Your task to perform on an android device: delete the emails in spam in the gmail app Image 0: 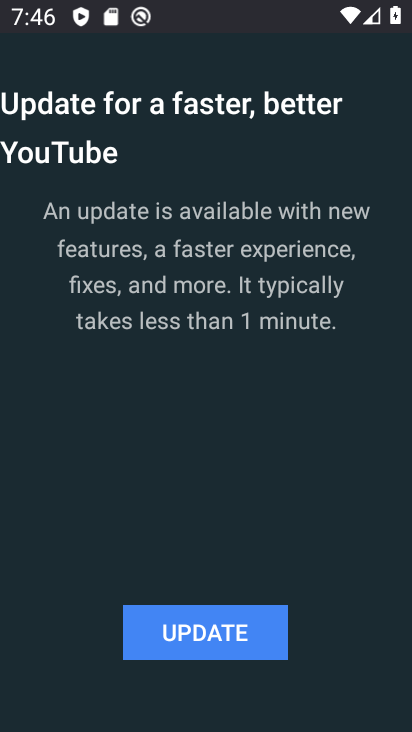
Step 0: press home button
Your task to perform on an android device: delete the emails in spam in the gmail app Image 1: 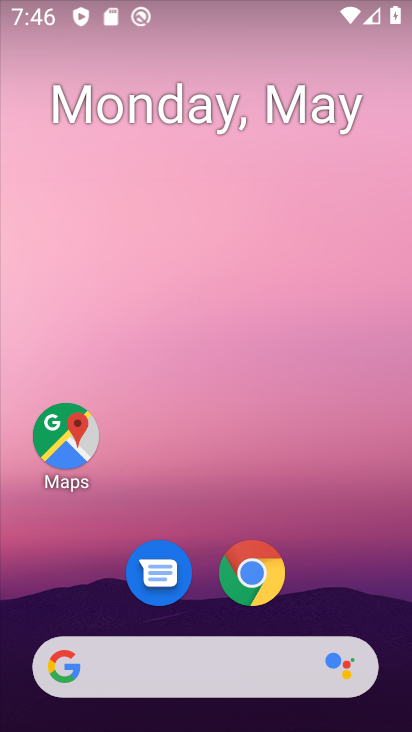
Step 1: drag from (353, 598) to (383, 143)
Your task to perform on an android device: delete the emails in spam in the gmail app Image 2: 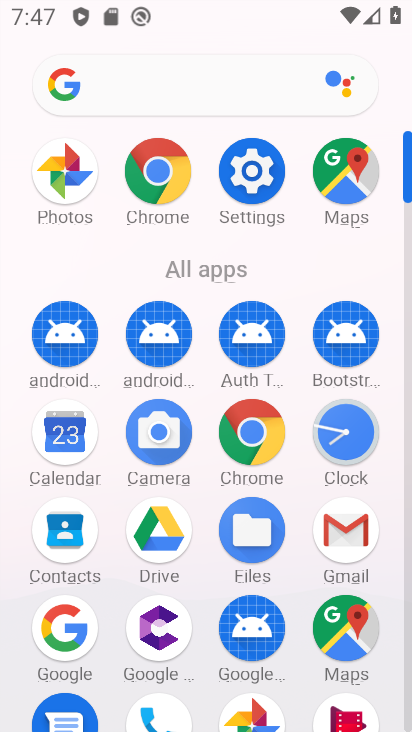
Step 2: click (353, 555)
Your task to perform on an android device: delete the emails in spam in the gmail app Image 3: 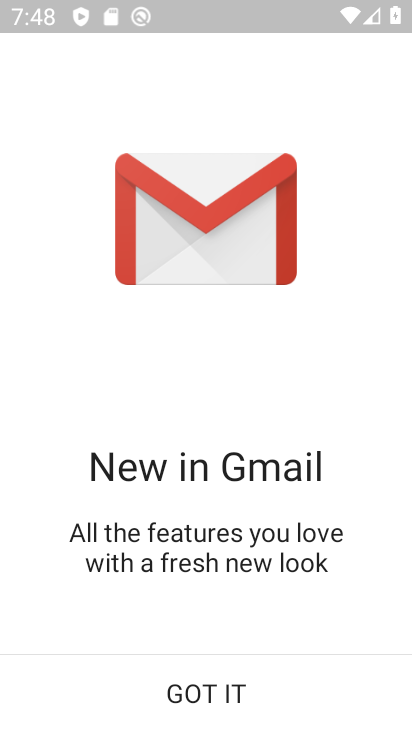
Step 3: click (279, 666)
Your task to perform on an android device: delete the emails in spam in the gmail app Image 4: 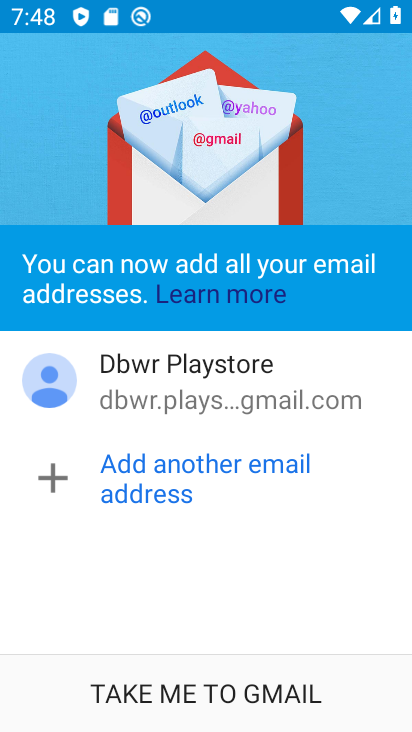
Step 4: click (279, 666)
Your task to perform on an android device: delete the emails in spam in the gmail app Image 5: 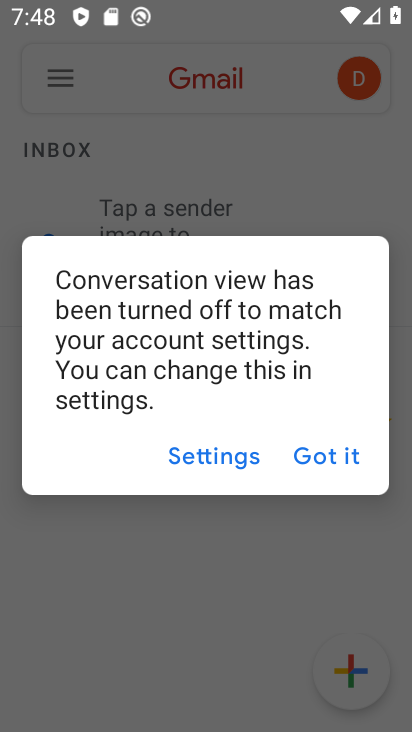
Step 5: click (344, 482)
Your task to perform on an android device: delete the emails in spam in the gmail app Image 6: 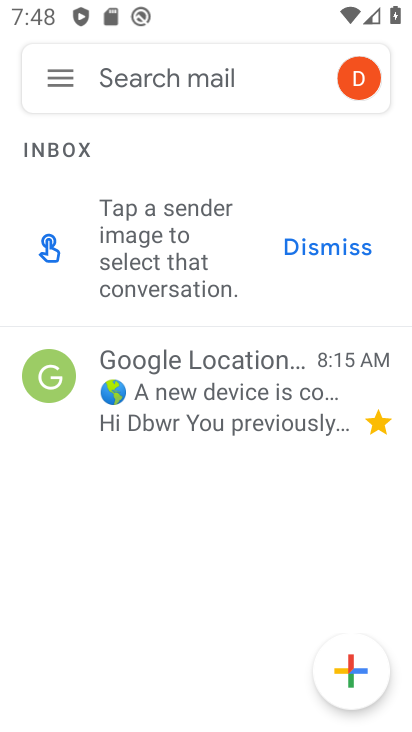
Step 6: click (51, 99)
Your task to perform on an android device: delete the emails in spam in the gmail app Image 7: 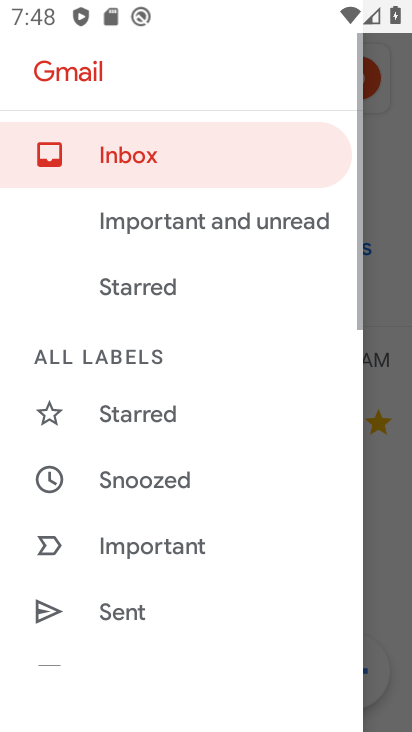
Step 7: drag from (171, 546) to (215, 123)
Your task to perform on an android device: delete the emails in spam in the gmail app Image 8: 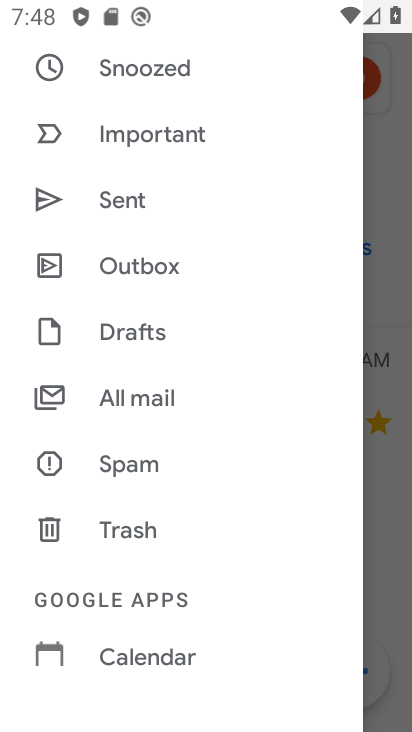
Step 8: click (187, 482)
Your task to perform on an android device: delete the emails in spam in the gmail app Image 9: 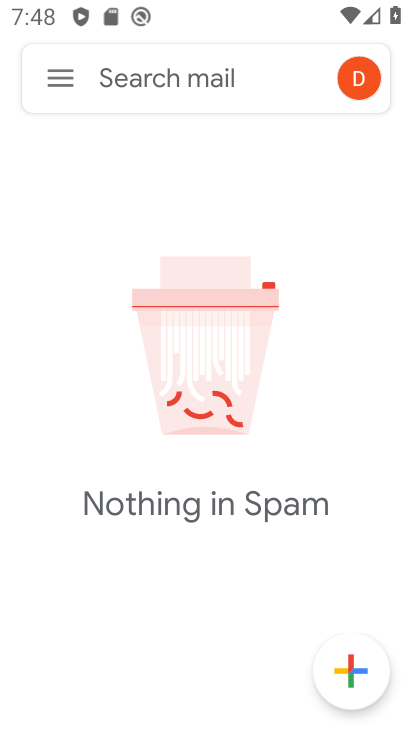
Step 9: task complete